Your task to perform on an android device: turn on wifi Image 0: 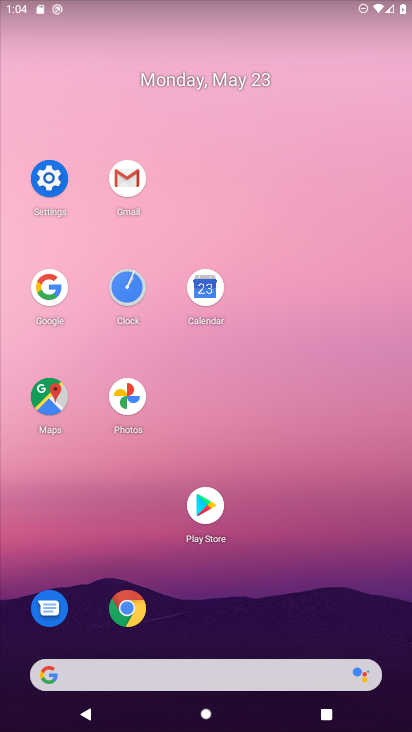
Step 0: click (61, 201)
Your task to perform on an android device: turn on wifi Image 1: 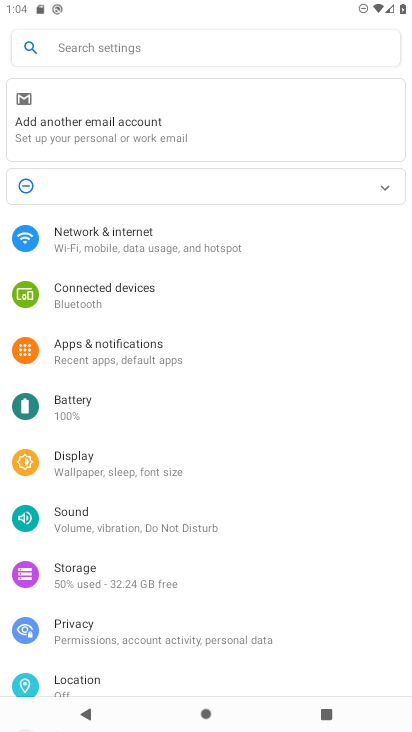
Step 1: click (94, 252)
Your task to perform on an android device: turn on wifi Image 2: 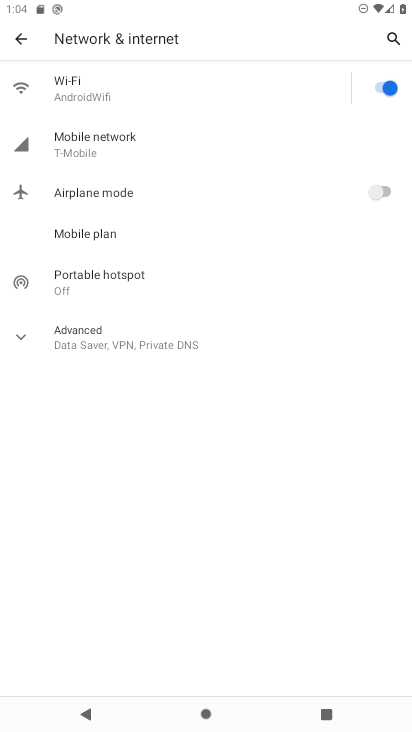
Step 2: task complete